Your task to perform on an android device: Show me popular games on the Play Store Image 0: 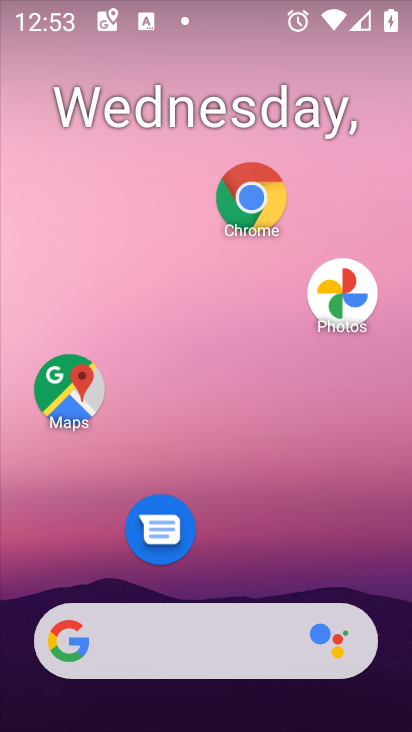
Step 0: drag from (278, 554) to (274, 202)
Your task to perform on an android device: Show me popular games on the Play Store Image 1: 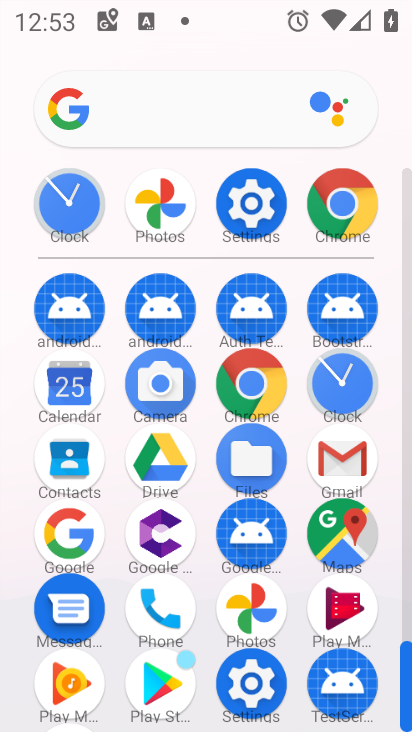
Step 1: click (172, 695)
Your task to perform on an android device: Show me popular games on the Play Store Image 2: 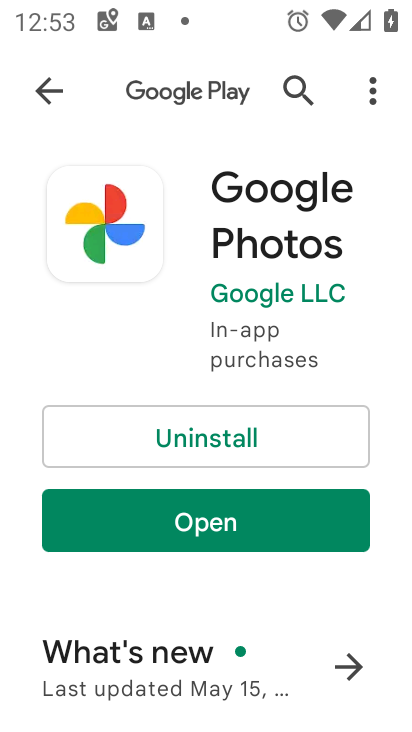
Step 2: click (44, 104)
Your task to perform on an android device: Show me popular games on the Play Store Image 3: 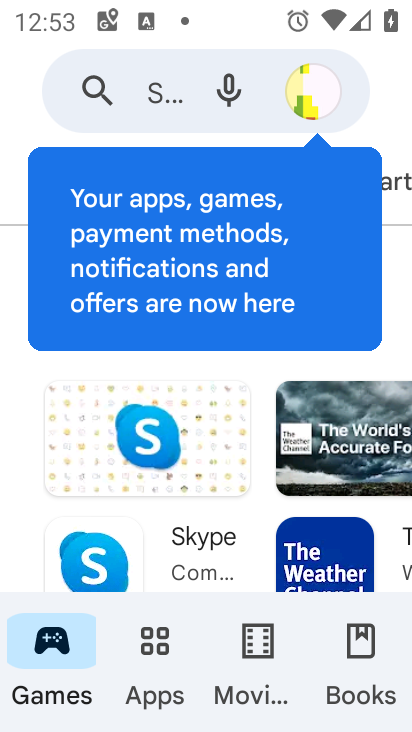
Step 3: click (44, 104)
Your task to perform on an android device: Show me popular games on the Play Store Image 4: 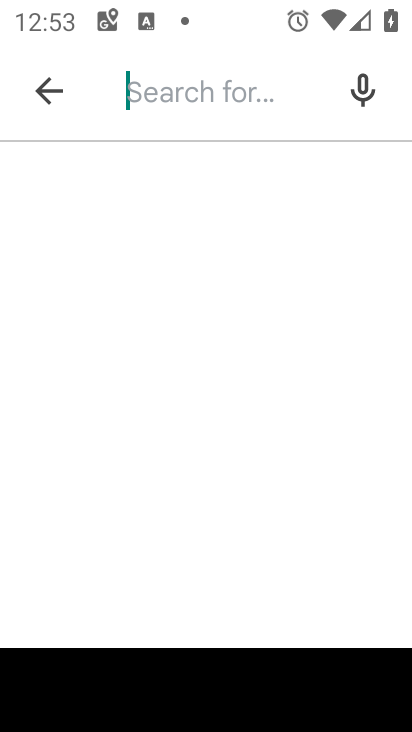
Step 4: task complete